Your task to perform on an android device: What's the weather going to be tomorrow? Image 0: 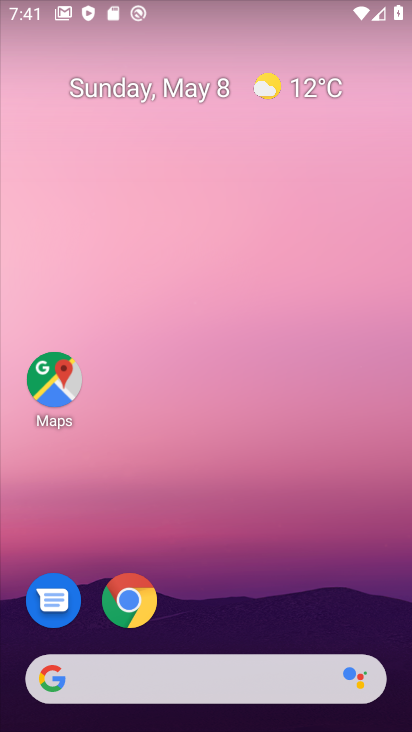
Step 0: click (318, 91)
Your task to perform on an android device: What's the weather going to be tomorrow? Image 1: 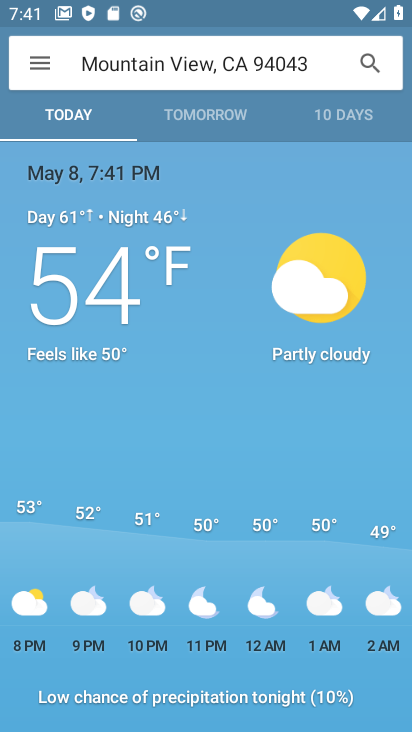
Step 1: click (210, 117)
Your task to perform on an android device: What's the weather going to be tomorrow? Image 2: 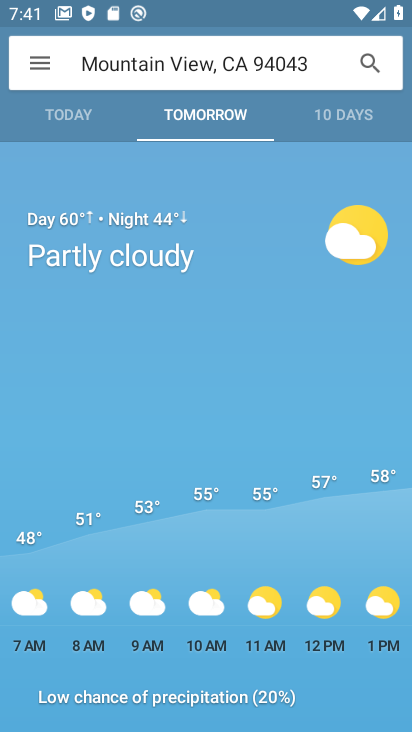
Step 2: task complete